Your task to perform on an android device: Go to Wikipedia Image 0: 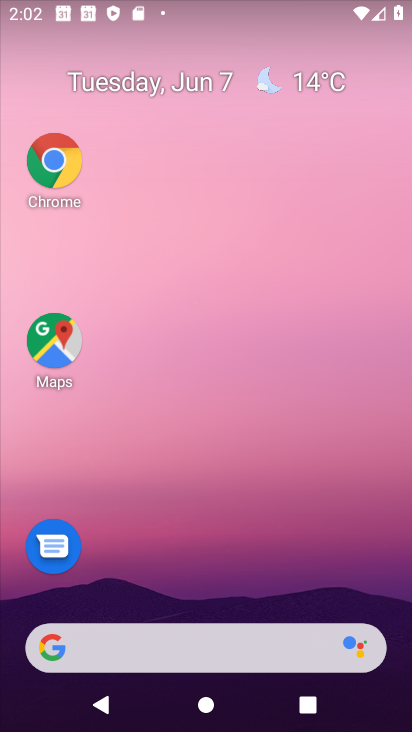
Step 0: drag from (210, 533) to (303, 103)
Your task to perform on an android device: Go to Wikipedia Image 1: 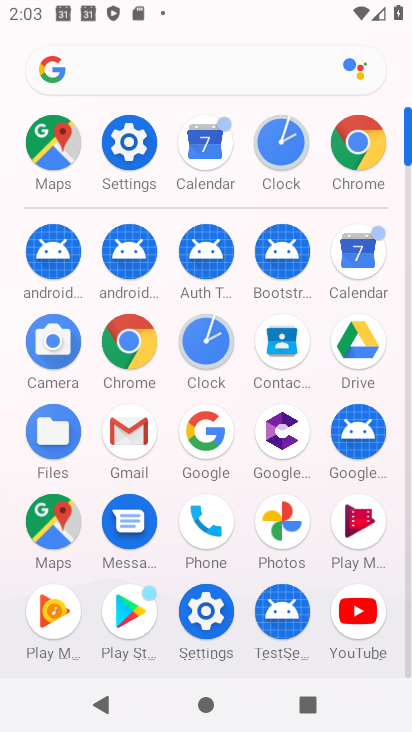
Step 1: click (105, 59)
Your task to perform on an android device: Go to Wikipedia Image 2: 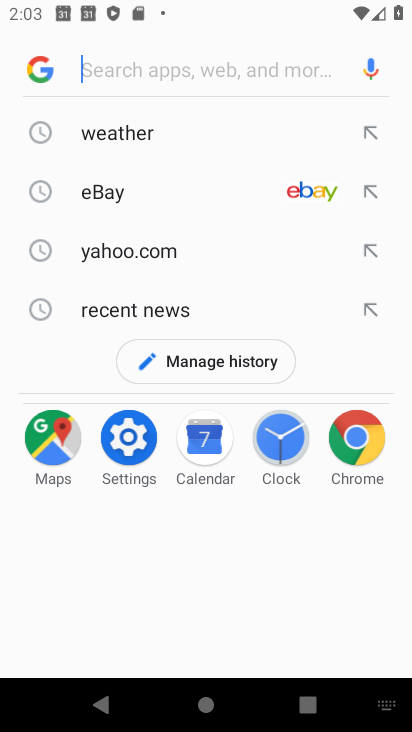
Step 2: type "Wikipedia"
Your task to perform on an android device: Go to Wikipedia Image 3: 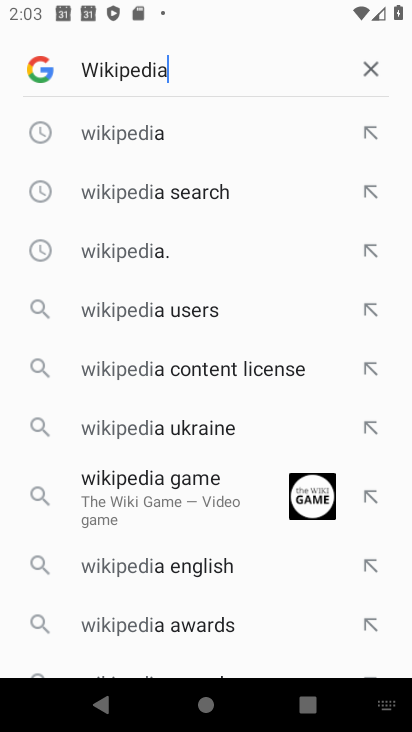
Step 3: type ""
Your task to perform on an android device: Go to Wikipedia Image 4: 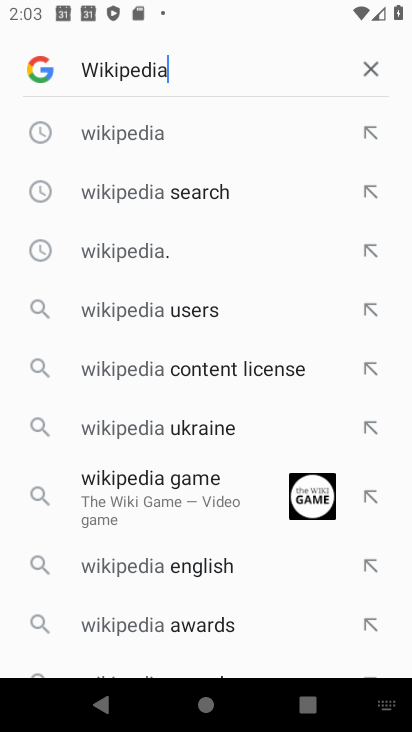
Step 4: click (150, 140)
Your task to perform on an android device: Go to Wikipedia Image 5: 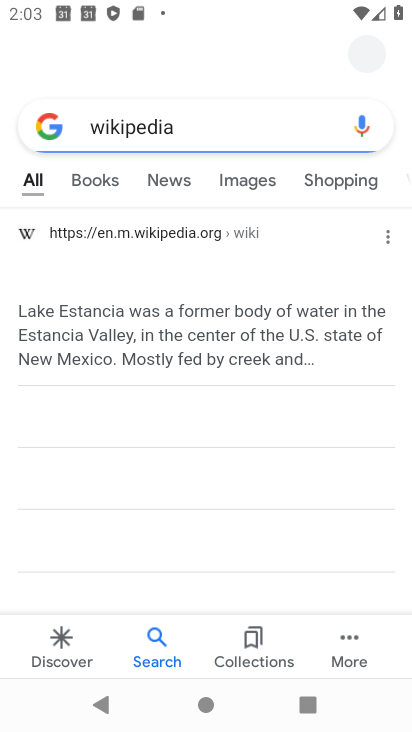
Step 5: drag from (228, 482) to (308, 257)
Your task to perform on an android device: Go to Wikipedia Image 6: 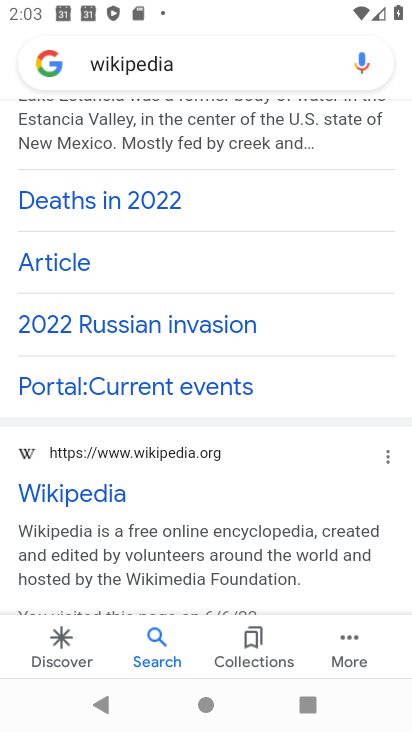
Step 6: drag from (134, 241) to (158, 678)
Your task to perform on an android device: Go to Wikipedia Image 7: 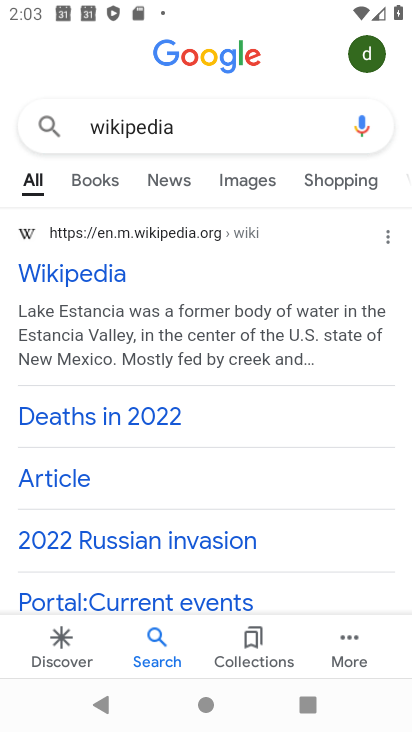
Step 7: click (90, 270)
Your task to perform on an android device: Go to Wikipedia Image 8: 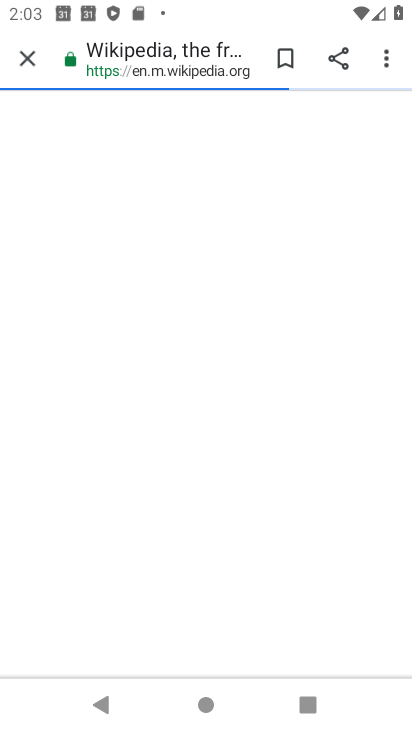
Step 8: task complete